Your task to perform on an android device: Open the map Image 0: 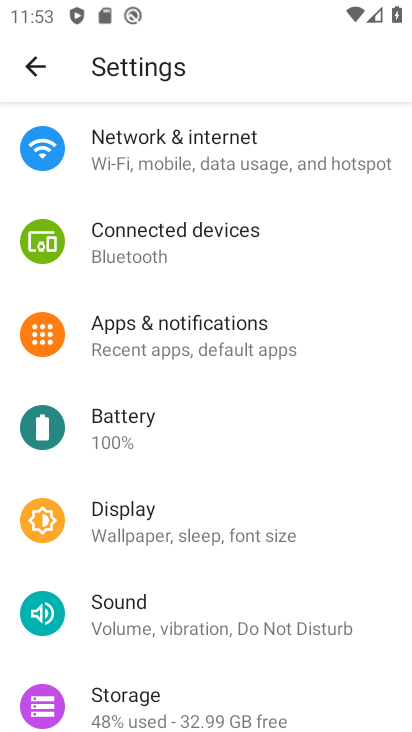
Step 0: press home button
Your task to perform on an android device: Open the map Image 1: 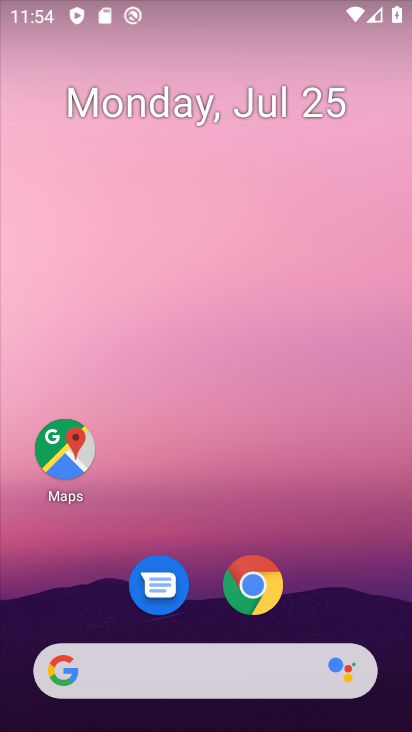
Step 1: click (63, 476)
Your task to perform on an android device: Open the map Image 2: 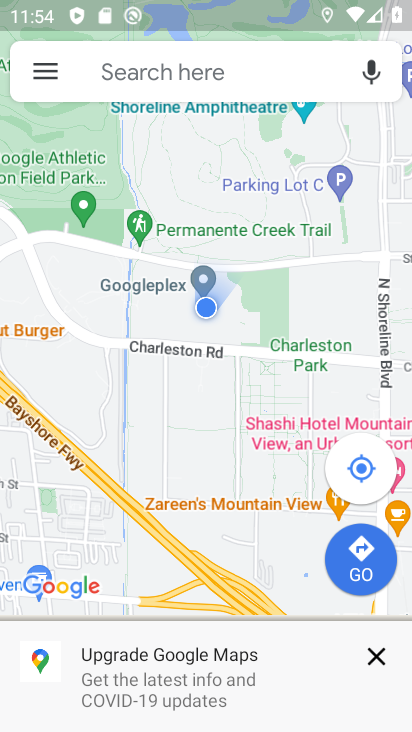
Step 2: task complete